Your task to perform on an android device: Open location settings Image 0: 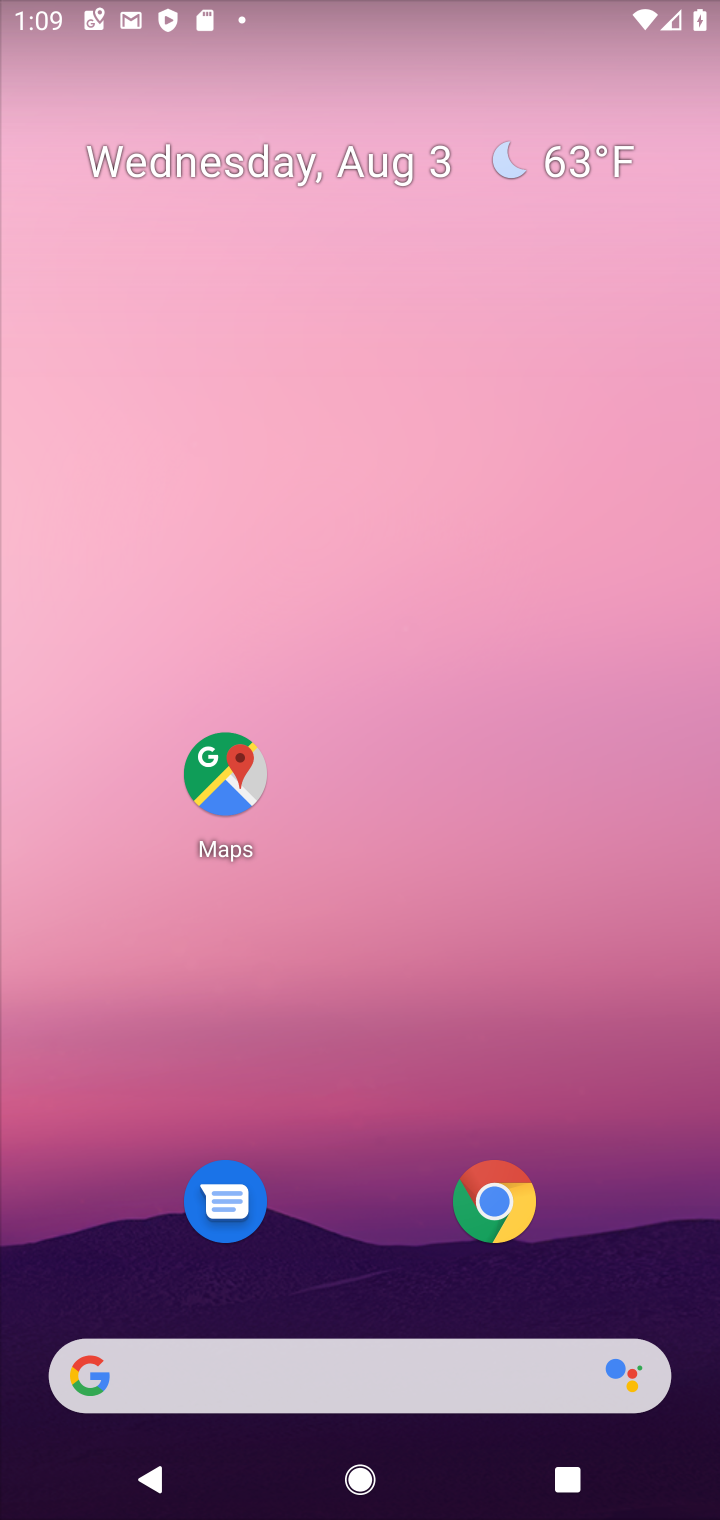
Step 0: press home button
Your task to perform on an android device: Open location settings Image 1: 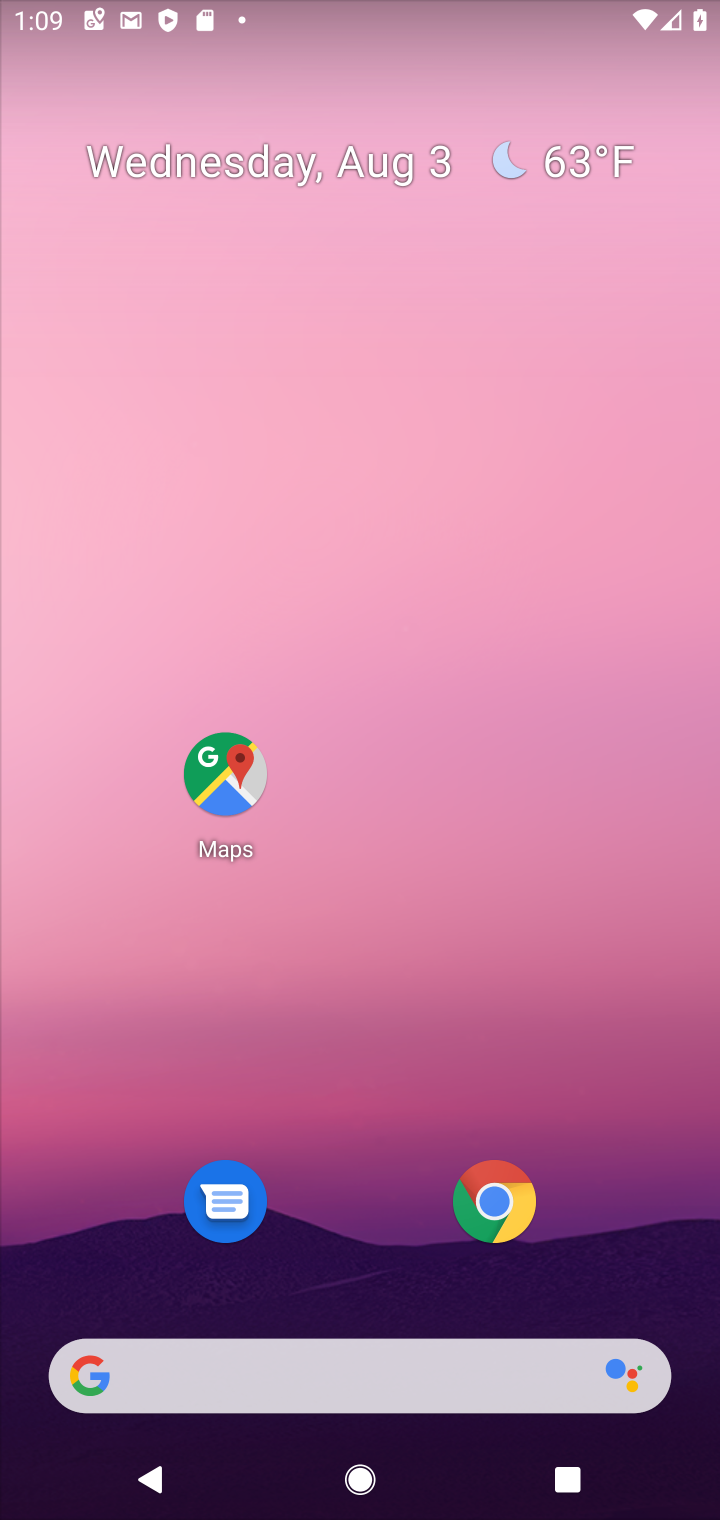
Step 1: drag from (249, 1374) to (454, 172)
Your task to perform on an android device: Open location settings Image 2: 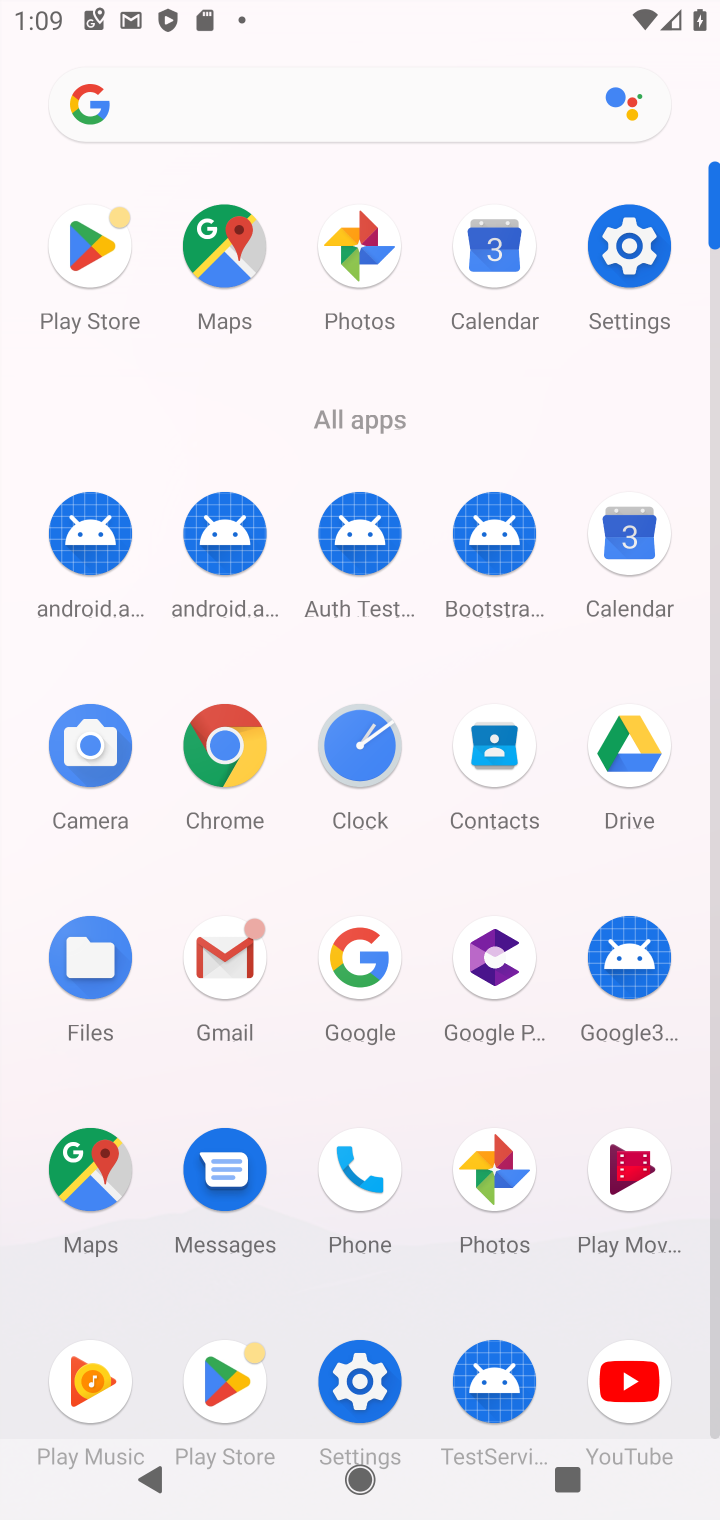
Step 2: click (630, 261)
Your task to perform on an android device: Open location settings Image 3: 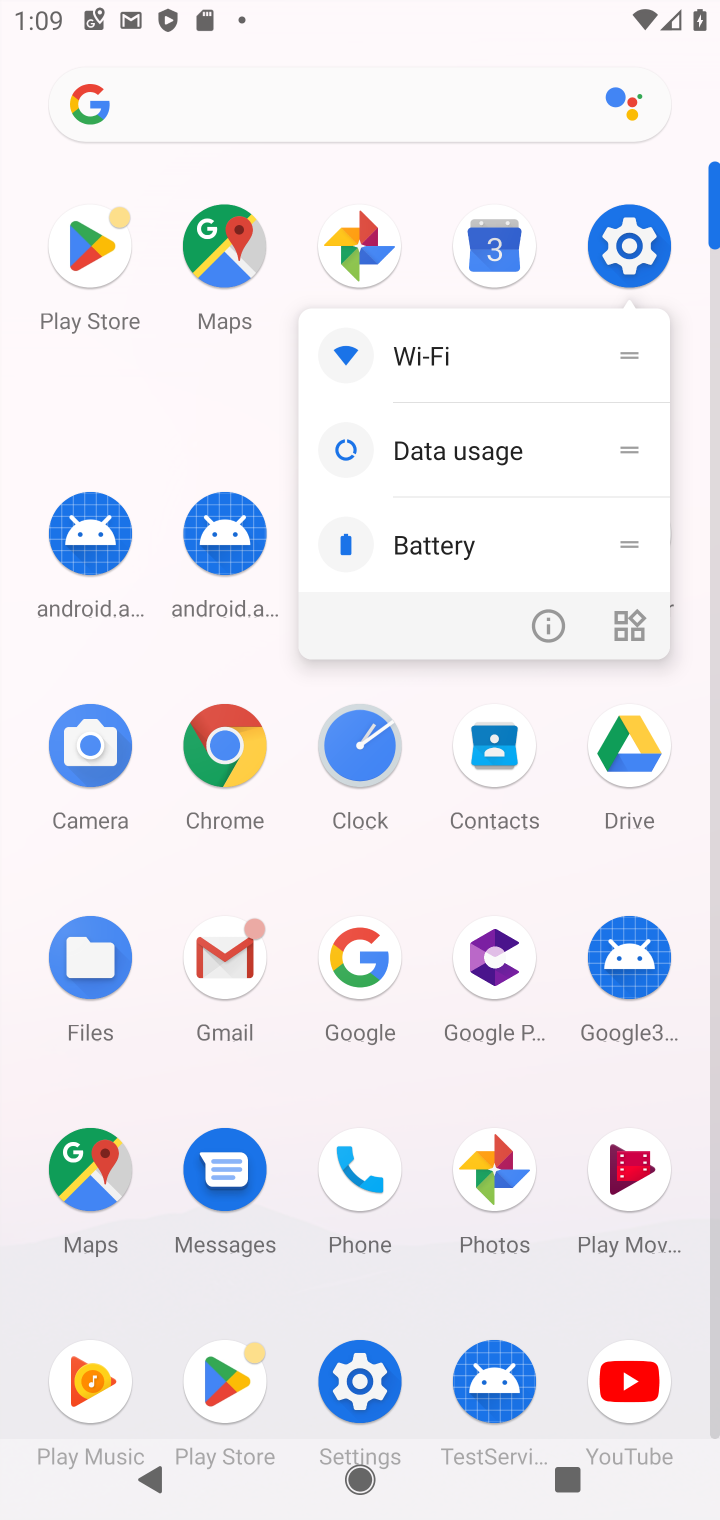
Step 3: click (630, 261)
Your task to perform on an android device: Open location settings Image 4: 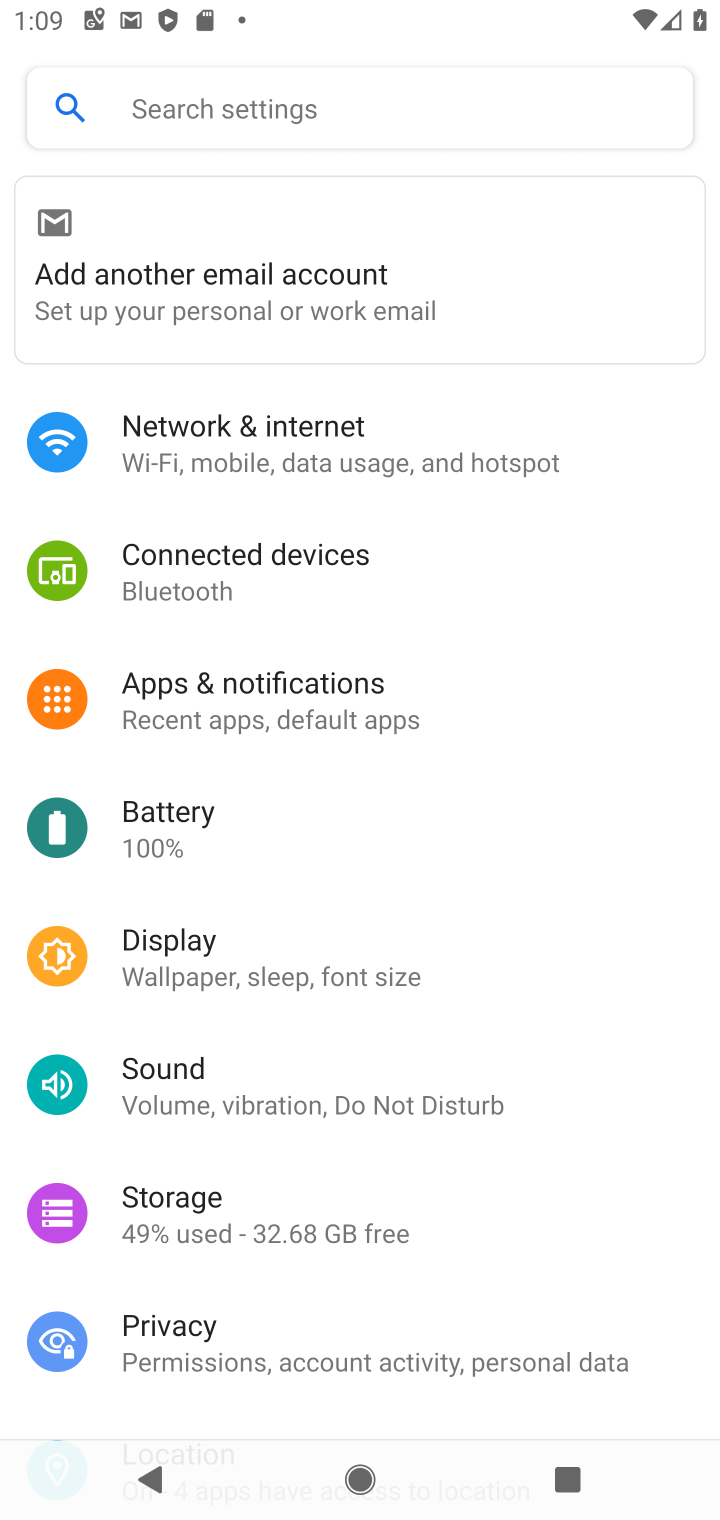
Step 4: drag from (345, 1247) to (464, 359)
Your task to perform on an android device: Open location settings Image 5: 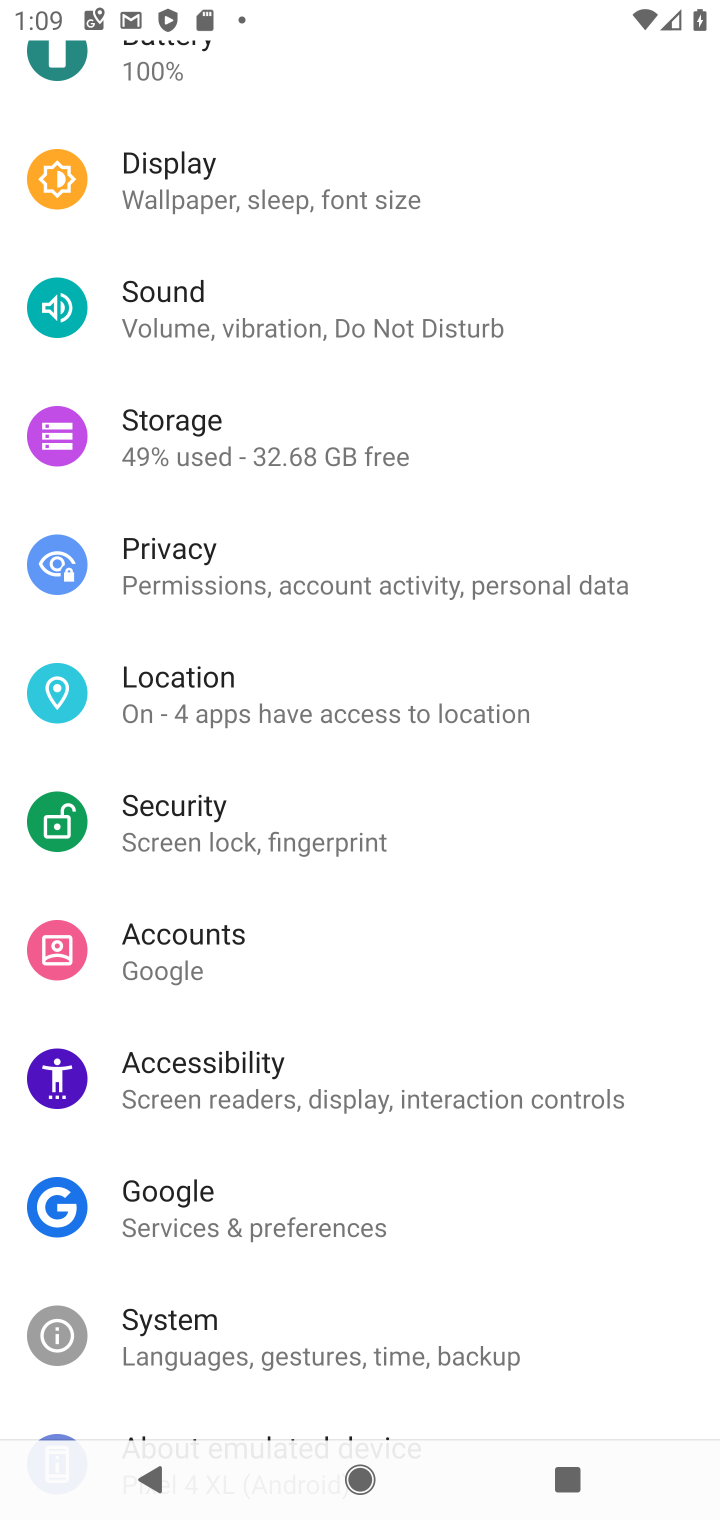
Step 5: click (228, 688)
Your task to perform on an android device: Open location settings Image 6: 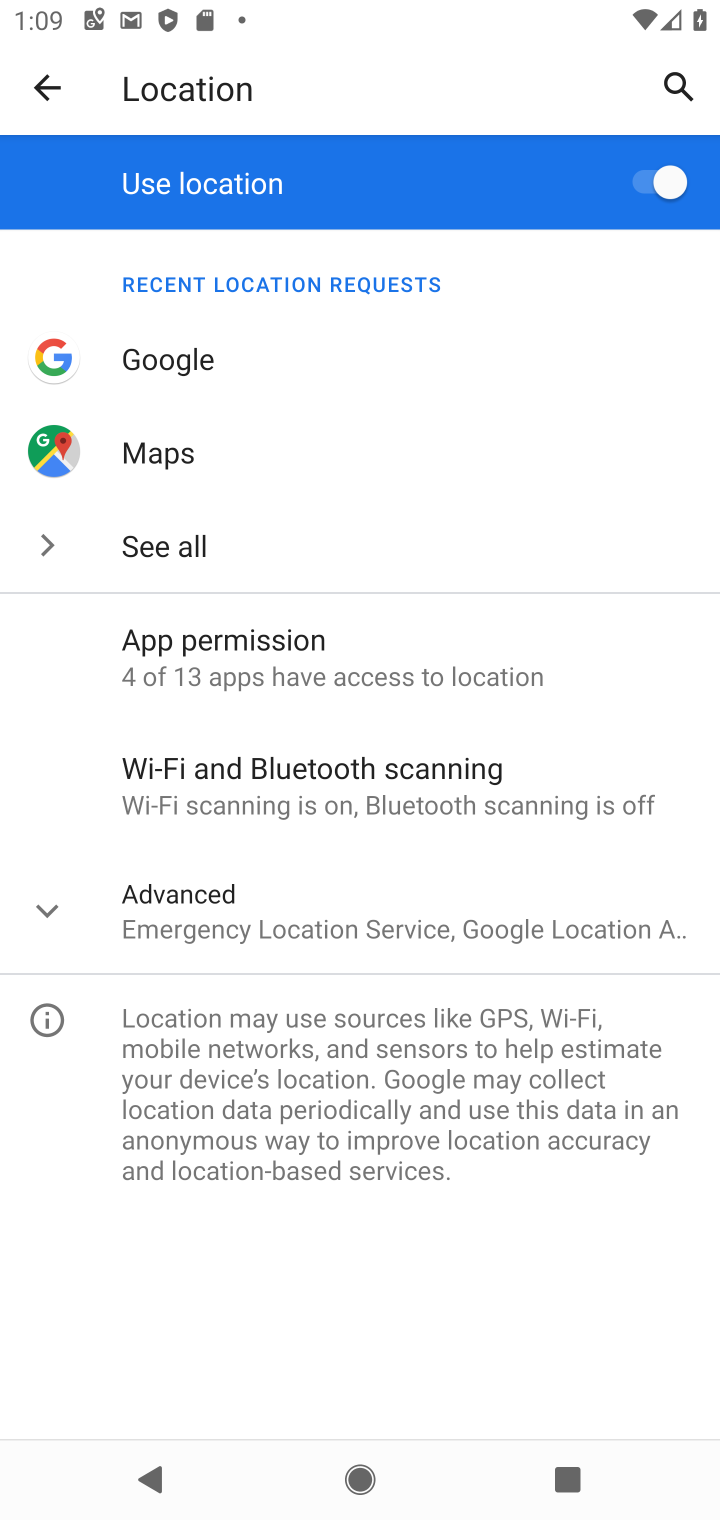
Step 6: task complete